Your task to perform on an android device: Show me the alarms in the clock app Image 0: 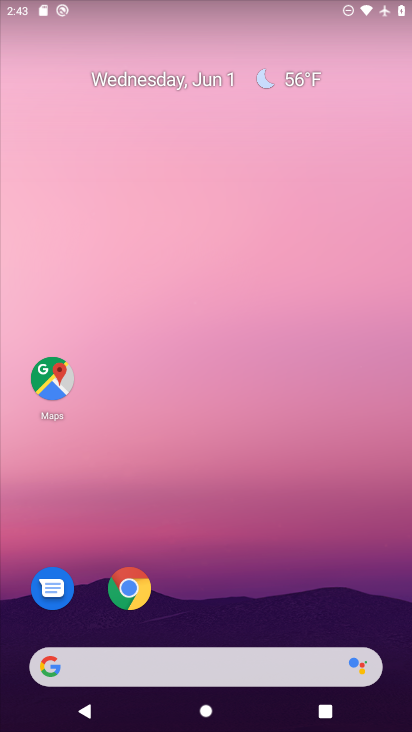
Step 0: drag from (265, 552) to (219, 7)
Your task to perform on an android device: Show me the alarms in the clock app Image 1: 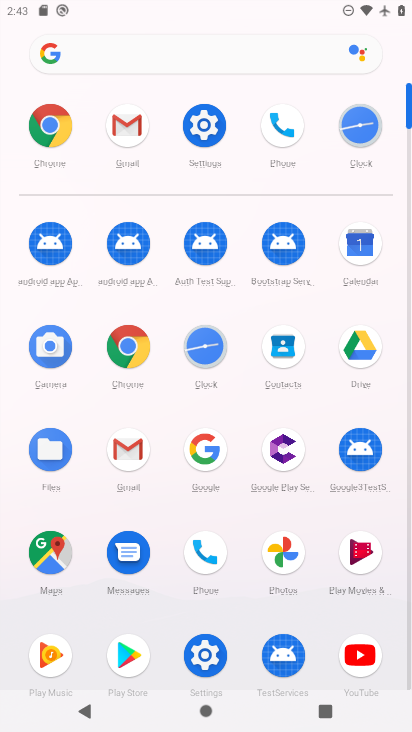
Step 1: click (208, 333)
Your task to perform on an android device: Show me the alarms in the clock app Image 2: 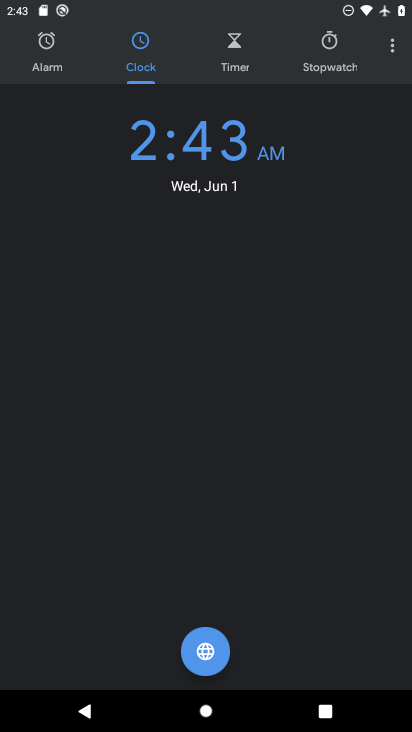
Step 2: click (47, 55)
Your task to perform on an android device: Show me the alarms in the clock app Image 3: 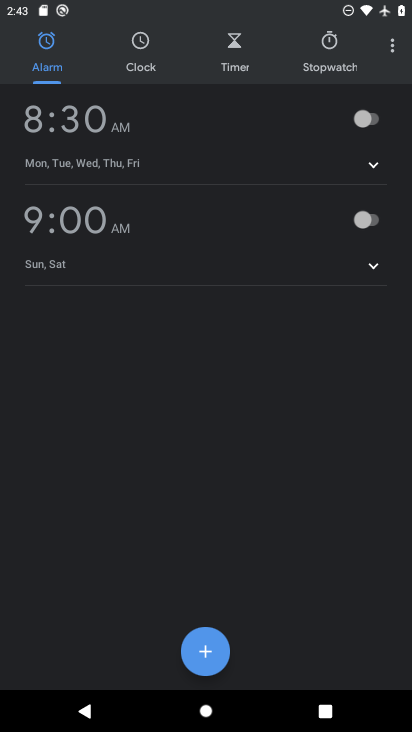
Step 3: task complete